Your task to perform on an android device: Open Google Maps Image 0: 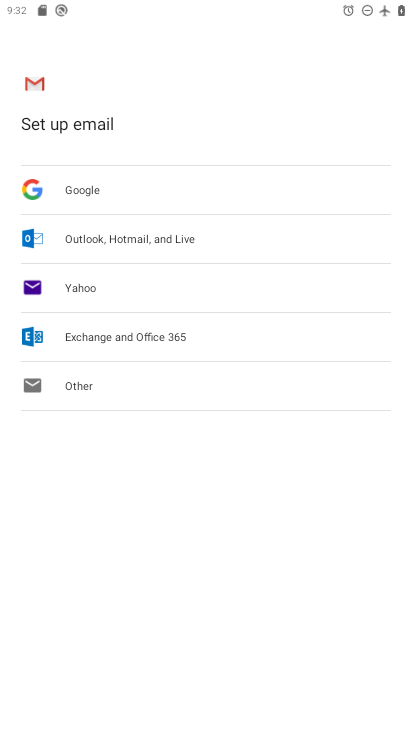
Step 0: press home button
Your task to perform on an android device: Open Google Maps Image 1: 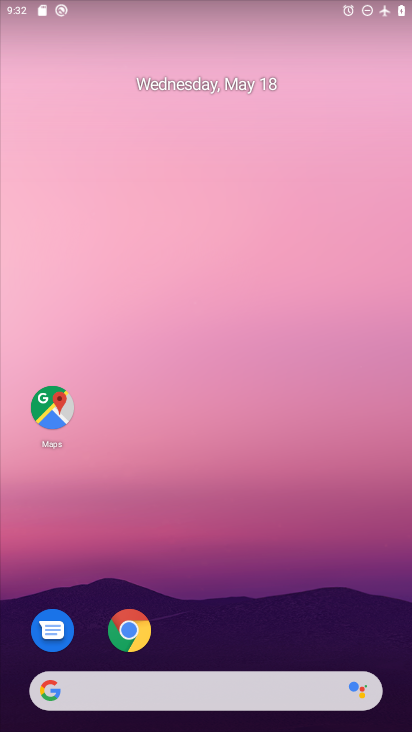
Step 1: drag from (169, 658) to (77, 62)
Your task to perform on an android device: Open Google Maps Image 2: 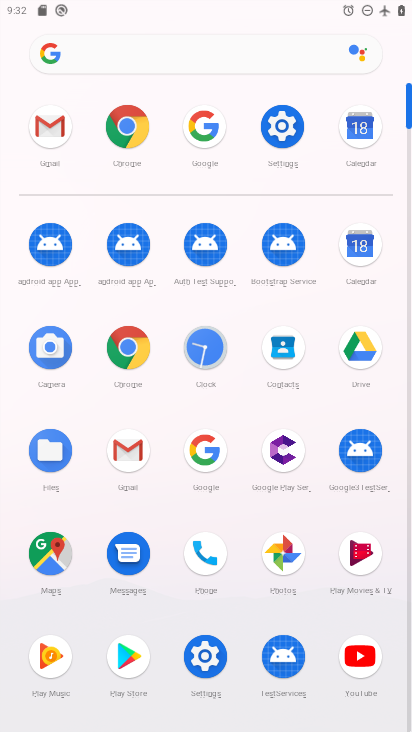
Step 2: click (25, 555)
Your task to perform on an android device: Open Google Maps Image 3: 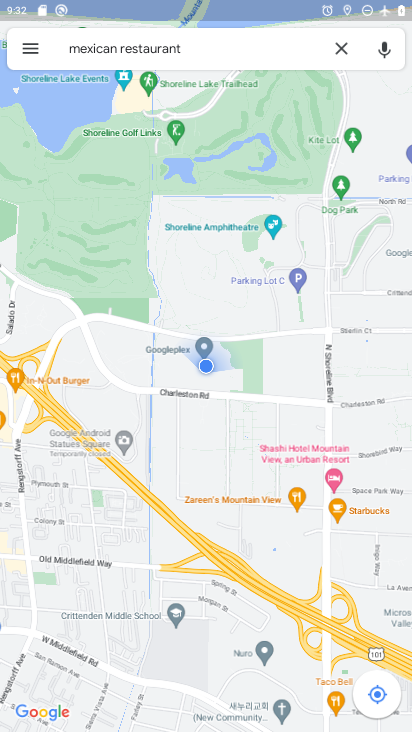
Step 3: task complete